Your task to perform on an android device: Go to internet settings Image 0: 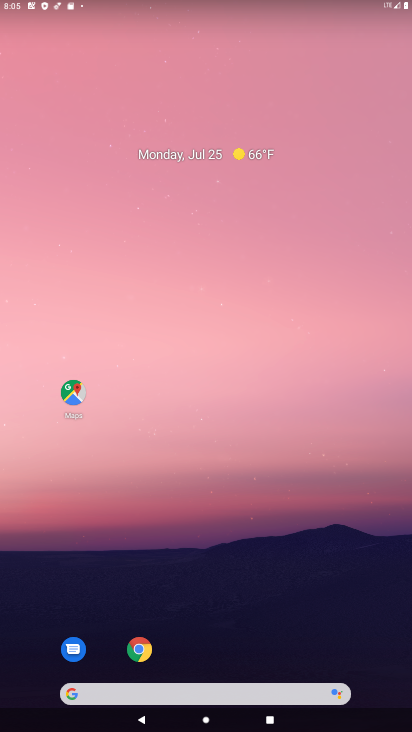
Step 0: drag from (351, 652) to (314, 112)
Your task to perform on an android device: Go to internet settings Image 1: 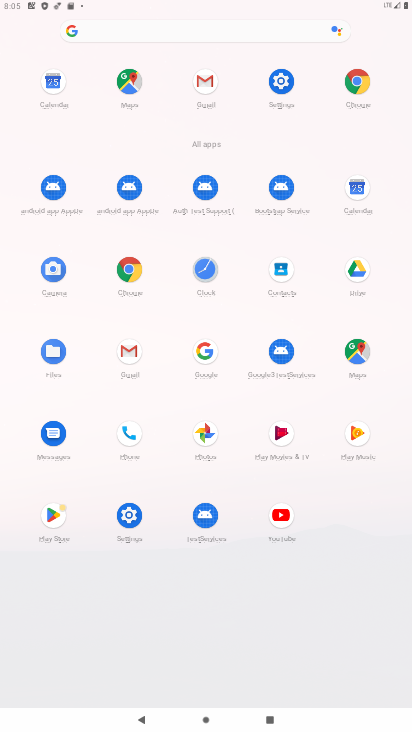
Step 1: click (282, 82)
Your task to perform on an android device: Go to internet settings Image 2: 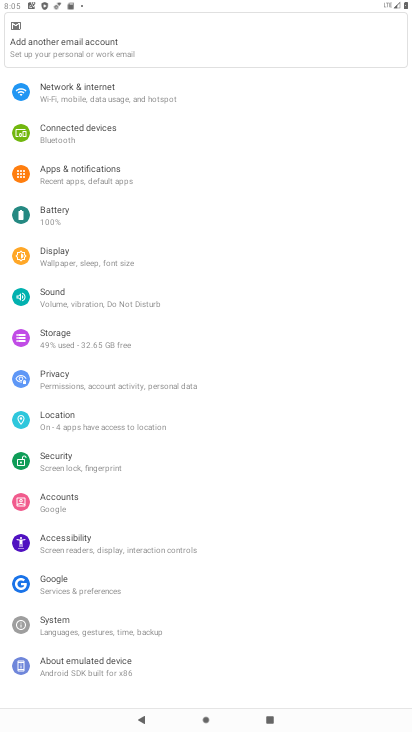
Step 2: click (214, 112)
Your task to perform on an android device: Go to internet settings Image 3: 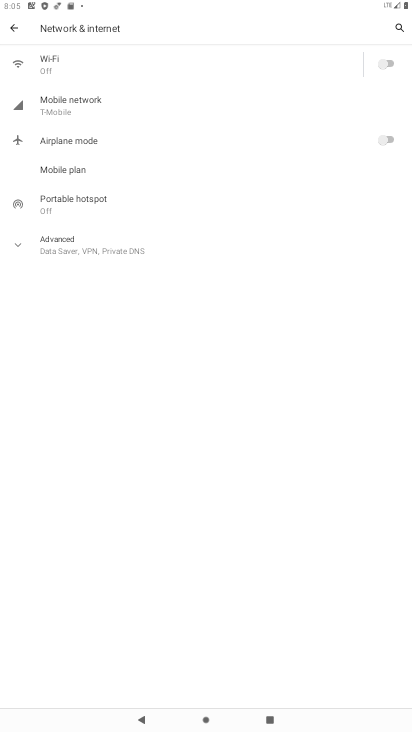
Step 3: task complete